Your task to perform on an android device: toggle notification dots Image 0: 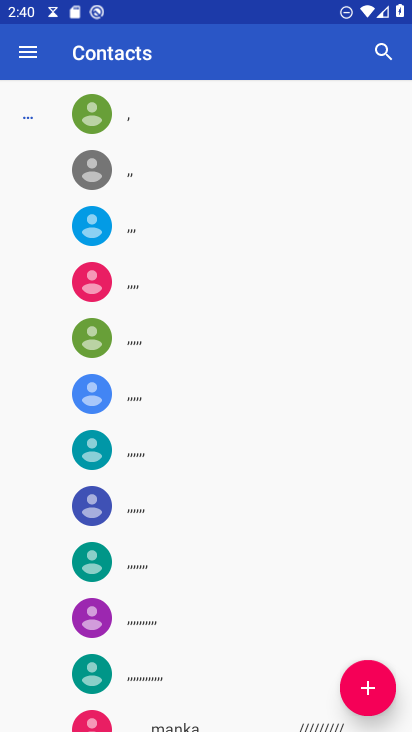
Step 0: press back button
Your task to perform on an android device: toggle notification dots Image 1: 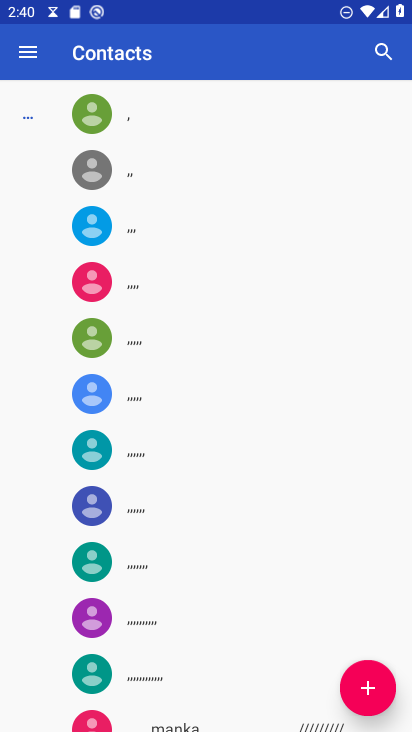
Step 1: press back button
Your task to perform on an android device: toggle notification dots Image 2: 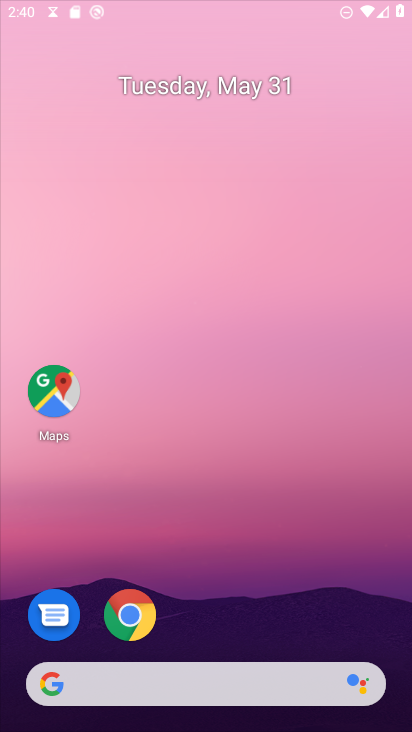
Step 2: press back button
Your task to perform on an android device: toggle notification dots Image 3: 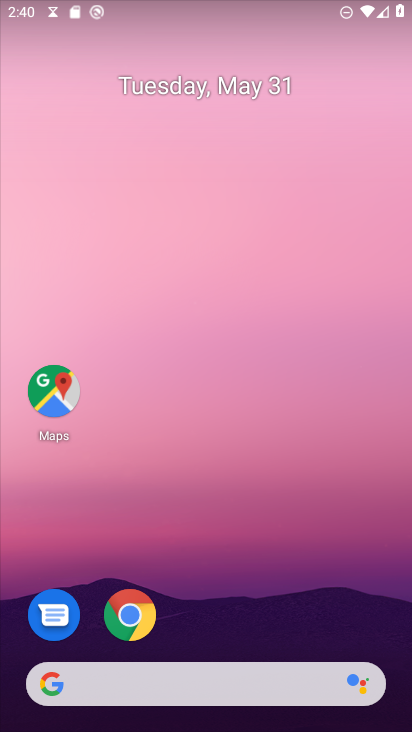
Step 3: click (139, 108)
Your task to perform on an android device: toggle notification dots Image 4: 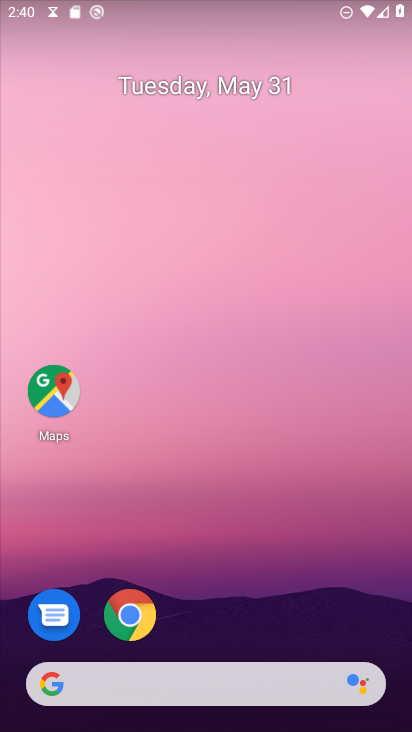
Step 4: drag from (250, 673) to (164, 159)
Your task to perform on an android device: toggle notification dots Image 5: 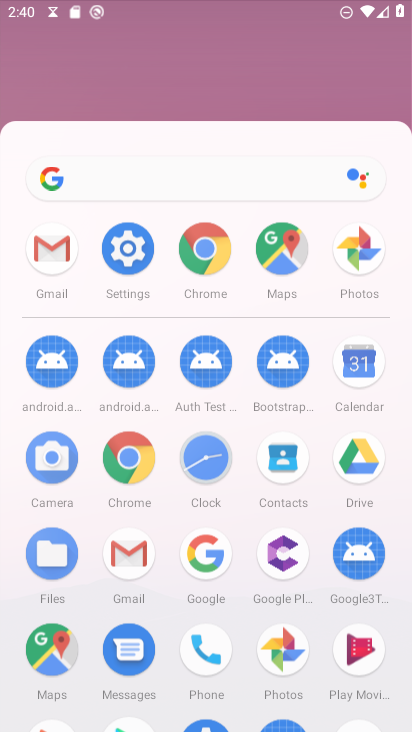
Step 5: drag from (224, 488) to (218, 1)
Your task to perform on an android device: toggle notification dots Image 6: 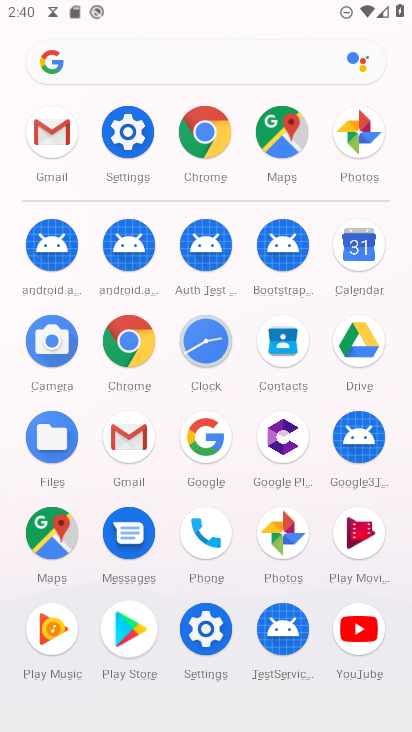
Step 6: click (208, 634)
Your task to perform on an android device: toggle notification dots Image 7: 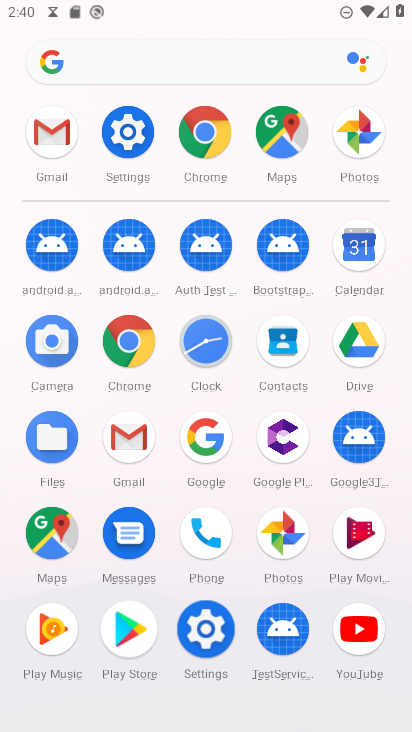
Step 7: click (210, 631)
Your task to perform on an android device: toggle notification dots Image 8: 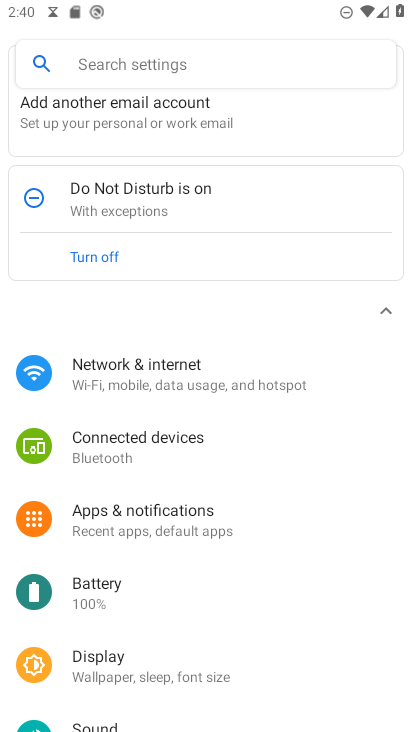
Step 8: click (140, 505)
Your task to perform on an android device: toggle notification dots Image 9: 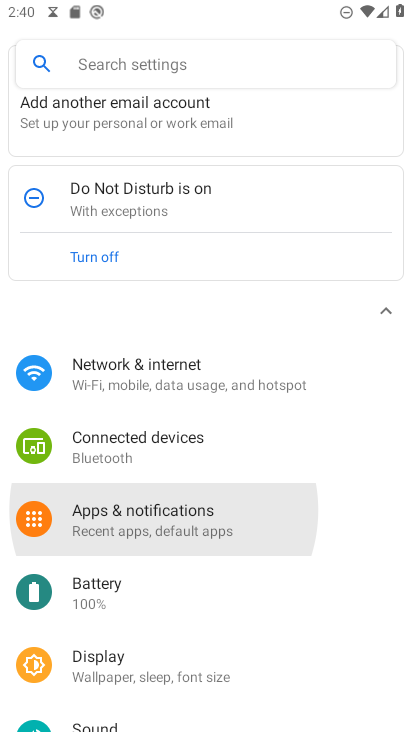
Step 9: click (139, 506)
Your task to perform on an android device: toggle notification dots Image 10: 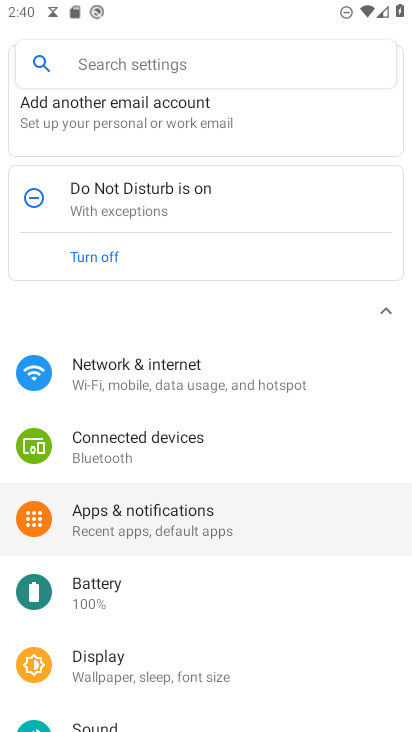
Step 10: click (139, 506)
Your task to perform on an android device: toggle notification dots Image 11: 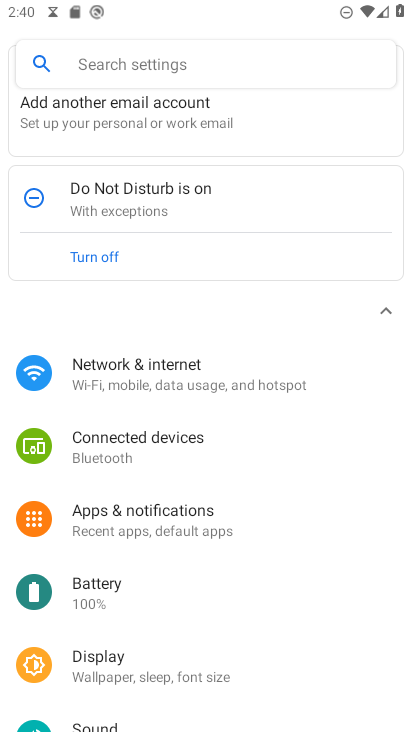
Step 11: click (131, 504)
Your task to perform on an android device: toggle notification dots Image 12: 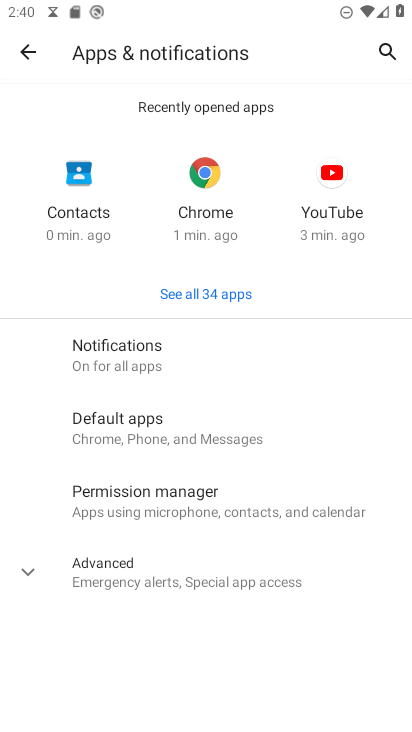
Step 12: click (123, 367)
Your task to perform on an android device: toggle notification dots Image 13: 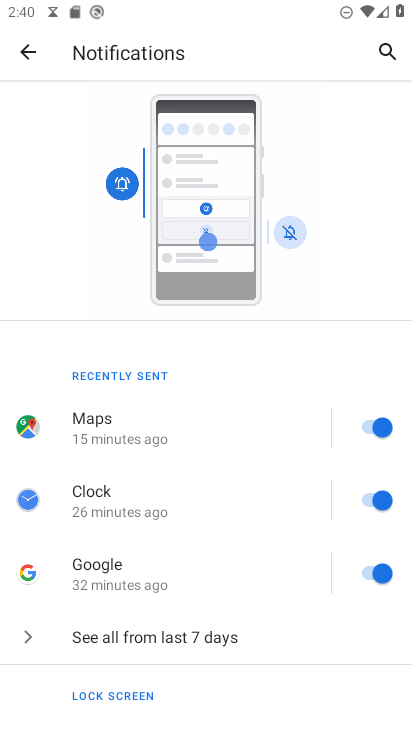
Step 13: drag from (154, 585) to (154, 221)
Your task to perform on an android device: toggle notification dots Image 14: 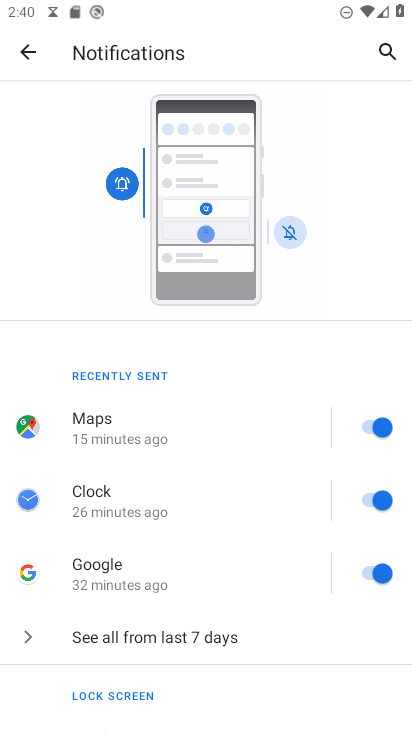
Step 14: click (181, 106)
Your task to perform on an android device: toggle notification dots Image 15: 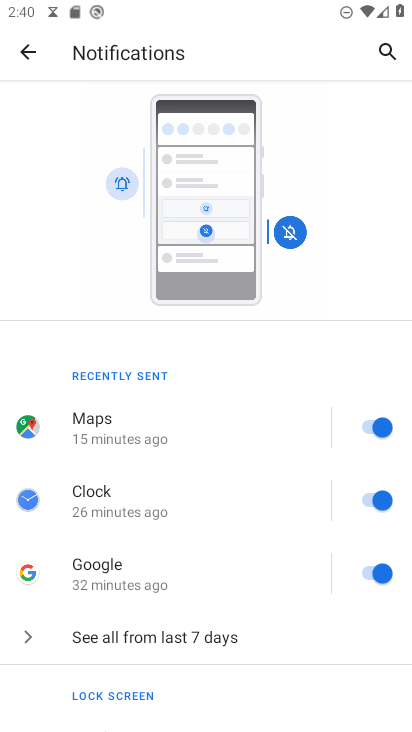
Step 15: drag from (57, 495) to (100, 194)
Your task to perform on an android device: toggle notification dots Image 16: 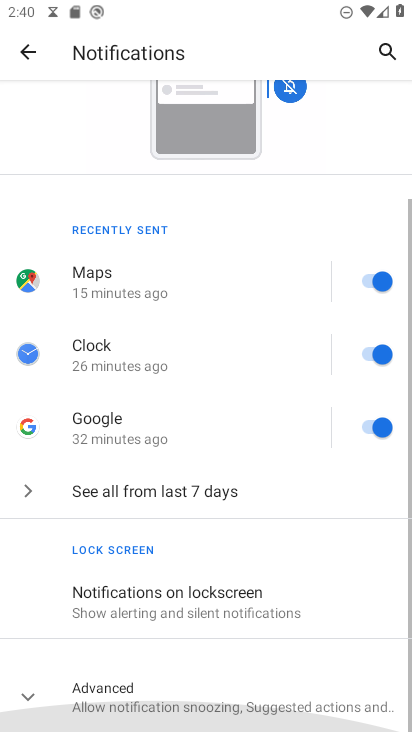
Step 16: drag from (170, 443) to (210, 84)
Your task to perform on an android device: toggle notification dots Image 17: 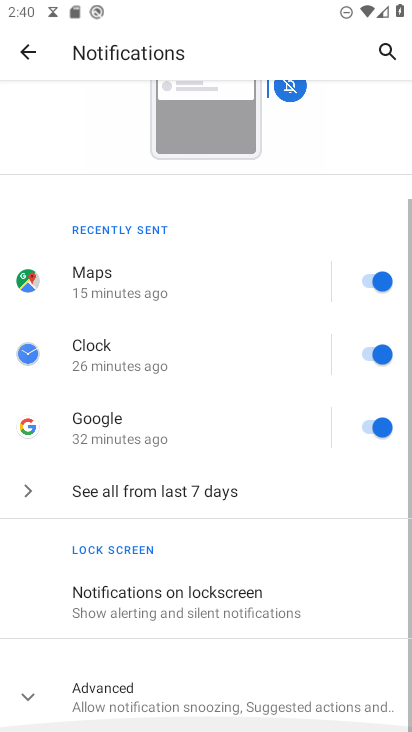
Step 17: drag from (210, 562) to (222, 266)
Your task to perform on an android device: toggle notification dots Image 18: 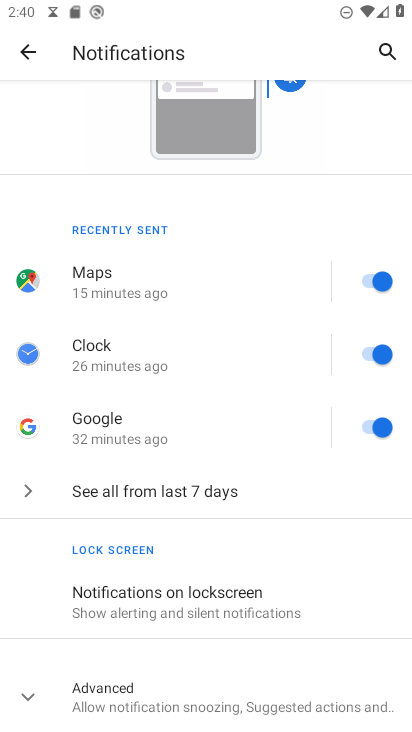
Step 18: drag from (167, 650) to (187, 339)
Your task to perform on an android device: toggle notification dots Image 19: 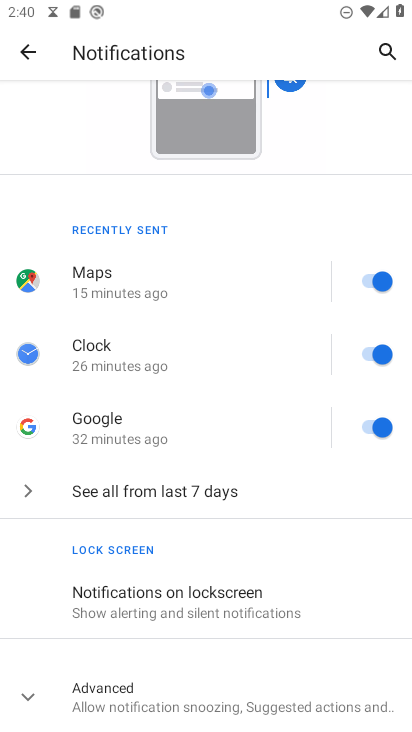
Step 19: click (123, 689)
Your task to perform on an android device: toggle notification dots Image 20: 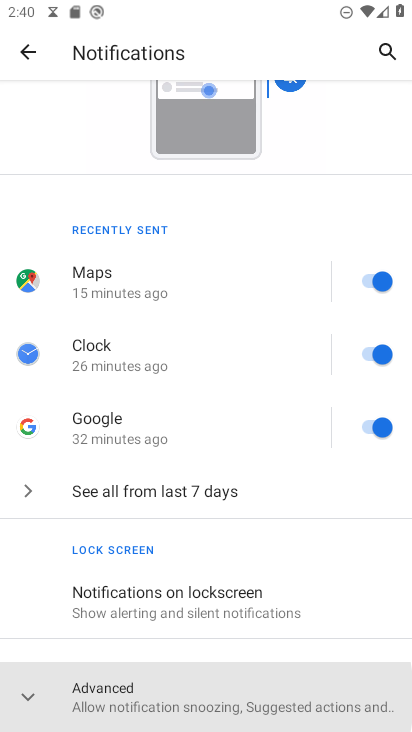
Step 20: click (122, 690)
Your task to perform on an android device: toggle notification dots Image 21: 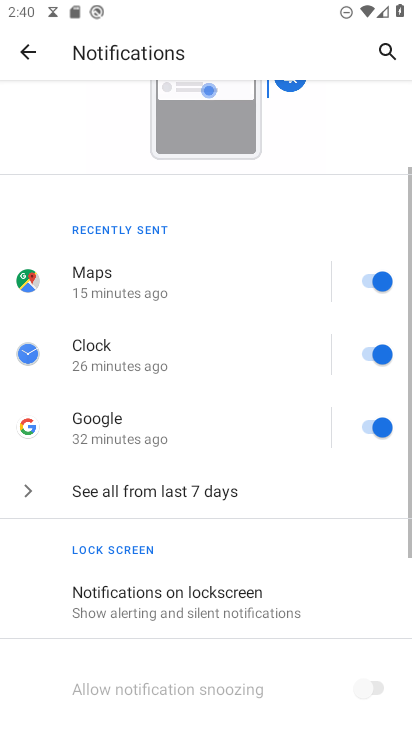
Step 21: click (122, 690)
Your task to perform on an android device: toggle notification dots Image 22: 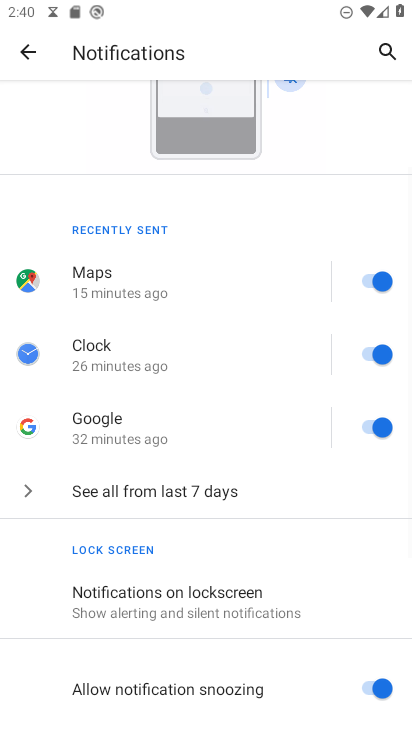
Step 22: drag from (210, 547) to (210, 301)
Your task to perform on an android device: toggle notification dots Image 23: 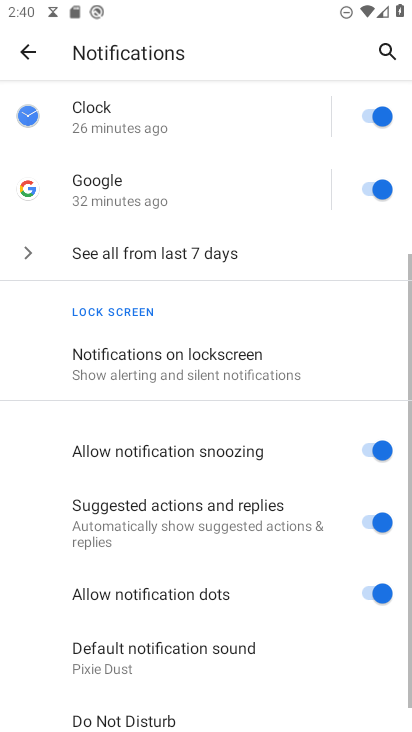
Step 23: drag from (204, 573) to (249, 357)
Your task to perform on an android device: toggle notification dots Image 24: 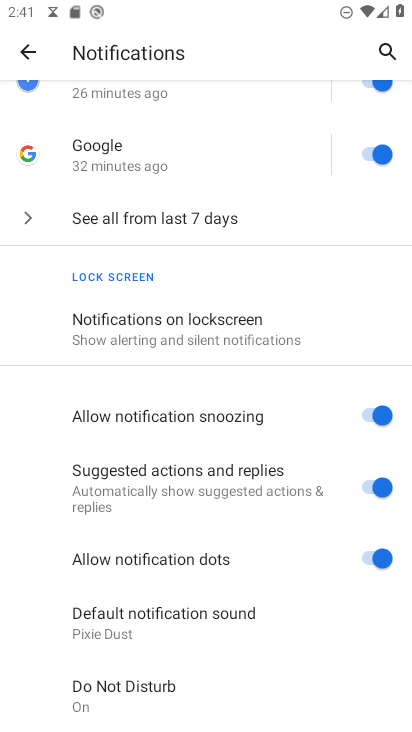
Step 24: click (375, 556)
Your task to perform on an android device: toggle notification dots Image 25: 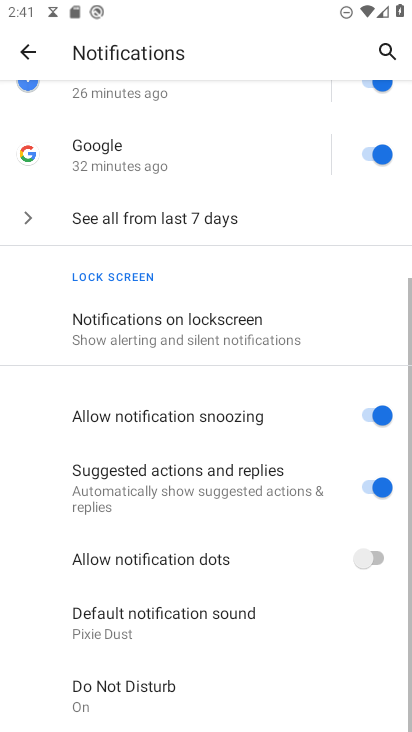
Step 25: task complete